Your task to perform on an android device: Go to internet settings Image 0: 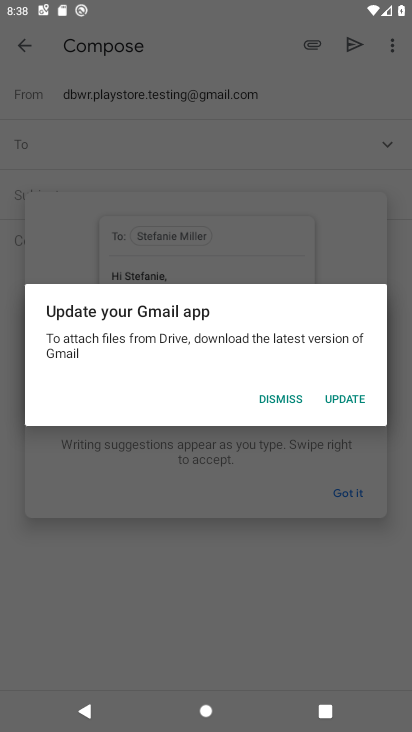
Step 0: press home button
Your task to perform on an android device: Go to internet settings Image 1: 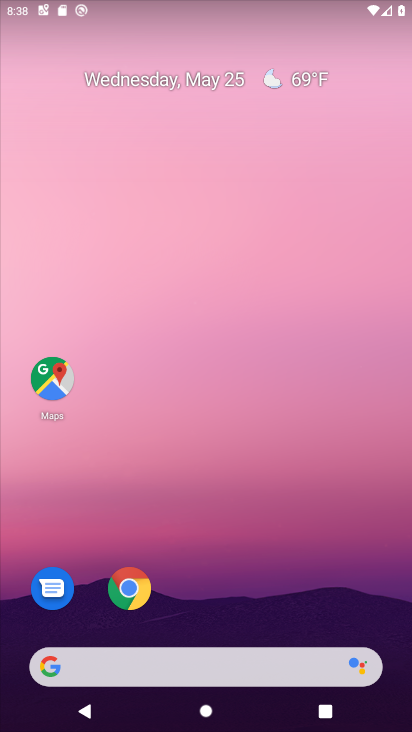
Step 1: drag from (268, 584) to (319, 103)
Your task to perform on an android device: Go to internet settings Image 2: 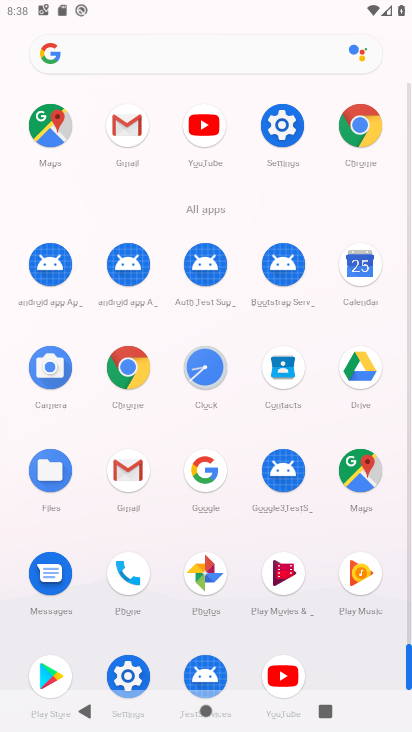
Step 2: click (290, 131)
Your task to perform on an android device: Go to internet settings Image 3: 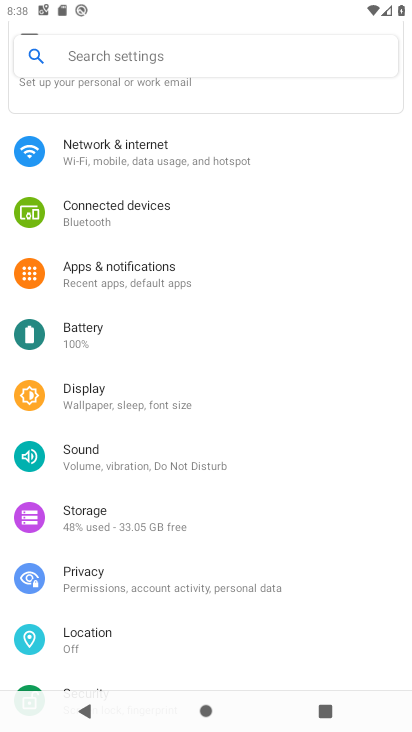
Step 3: drag from (343, 496) to (364, 393)
Your task to perform on an android device: Go to internet settings Image 4: 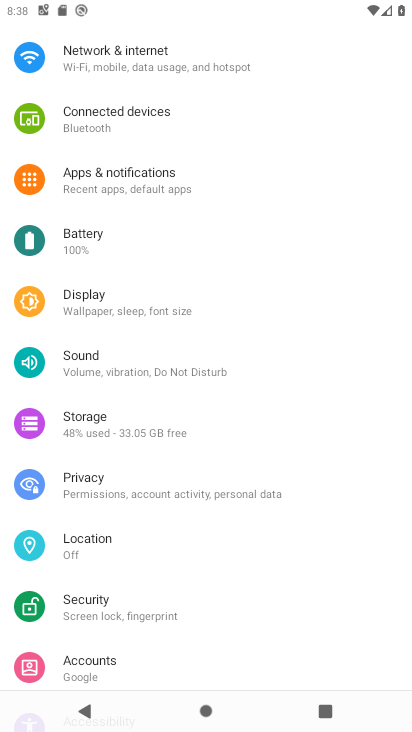
Step 4: drag from (346, 515) to (358, 437)
Your task to perform on an android device: Go to internet settings Image 5: 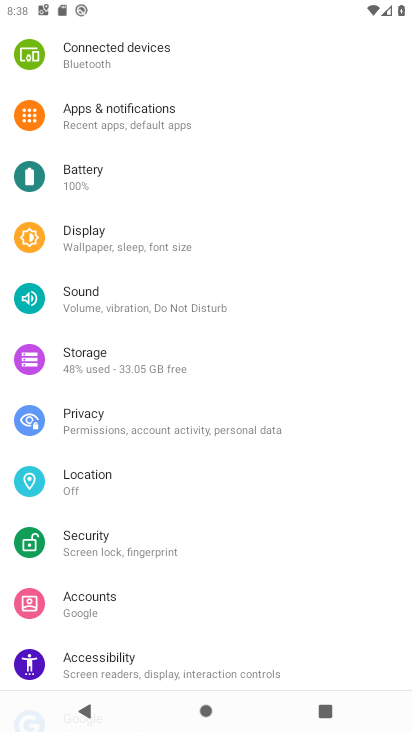
Step 5: drag from (347, 544) to (354, 475)
Your task to perform on an android device: Go to internet settings Image 6: 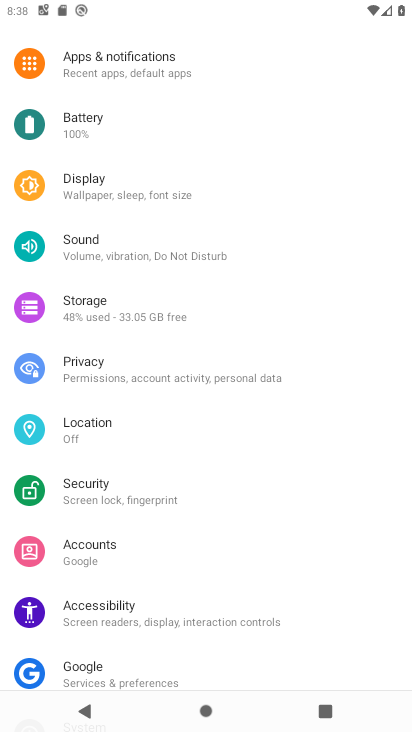
Step 6: drag from (337, 557) to (344, 481)
Your task to perform on an android device: Go to internet settings Image 7: 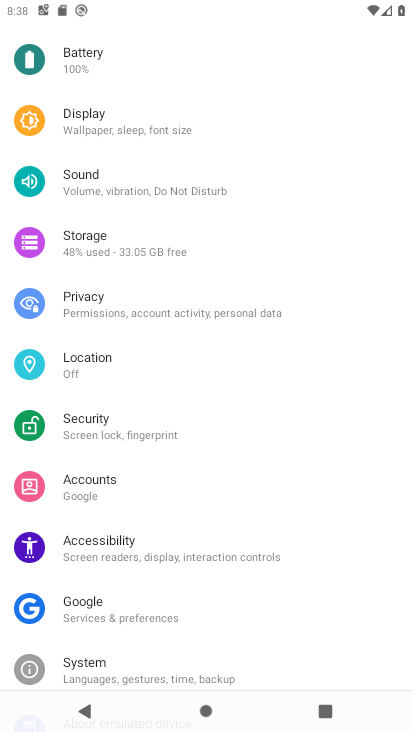
Step 7: drag from (331, 551) to (334, 517)
Your task to perform on an android device: Go to internet settings Image 8: 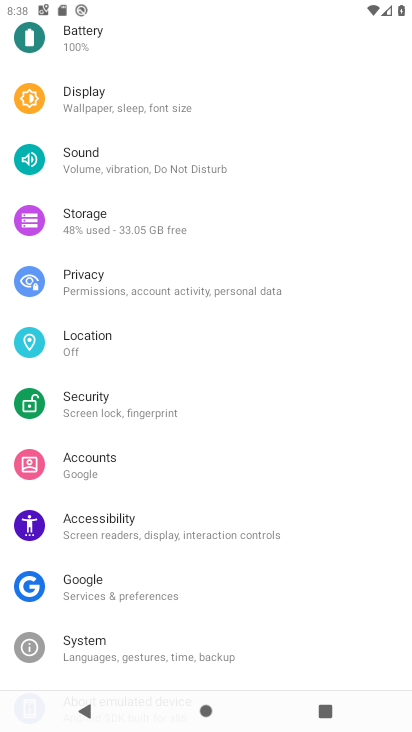
Step 8: drag from (345, 430) to (343, 475)
Your task to perform on an android device: Go to internet settings Image 9: 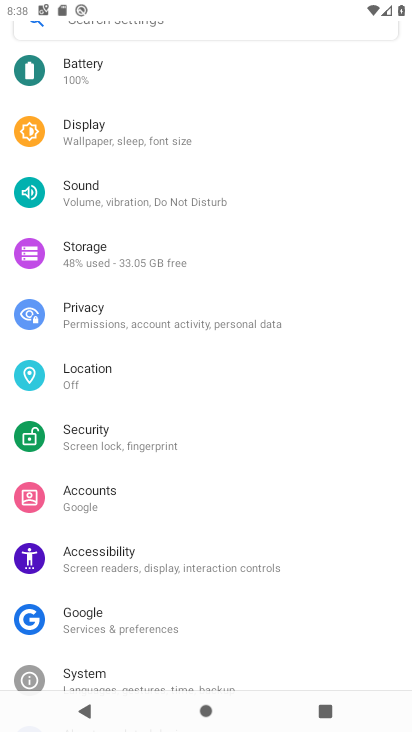
Step 9: drag from (347, 377) to (347, 411)
Your task to perform on an android device: Go to internet settings Image 10: 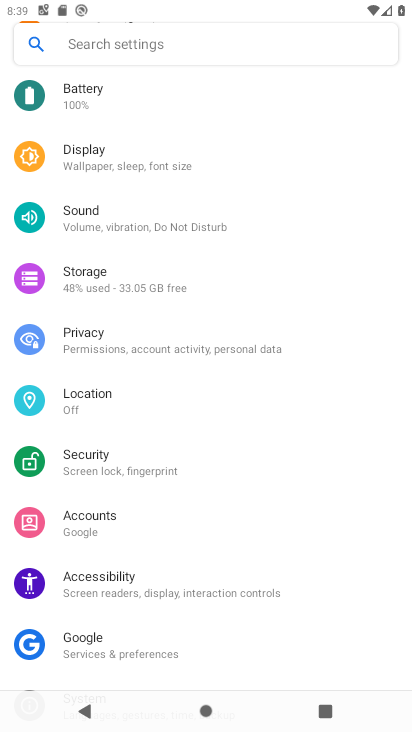
Step 10: drag from (373, 278) to (373, 348)
Your task to perform on an android device: Go to internet settings Image 11: 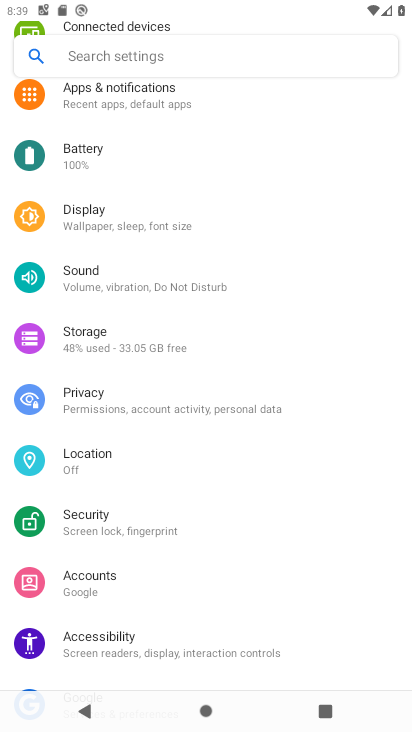
Step 11: drag from (356, 247) to (353, 323)
Your task to perform on an android device: Go to internet settings Image 12: 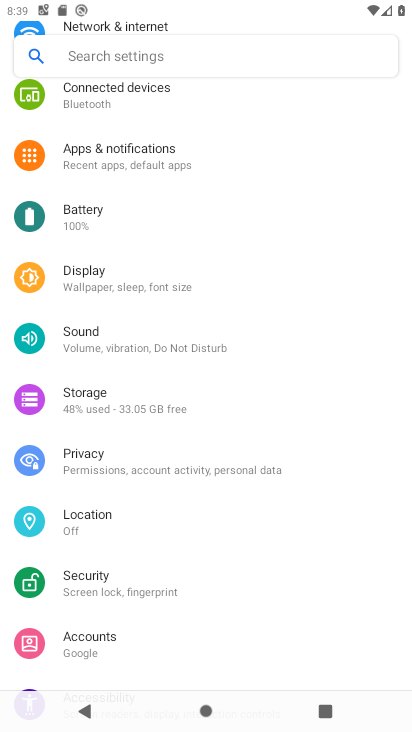
Step 12: drag from (355, 240) to (359, 306)
Your task to perform on an android device: Go to internet settings Image 13: 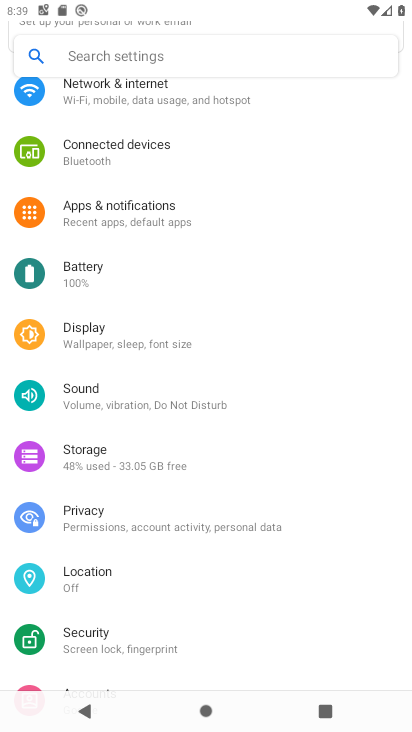
Step 13: drag from (358, 236) to (363, 304)
Your task to perform on an android device: Go to internet settings Image 14: 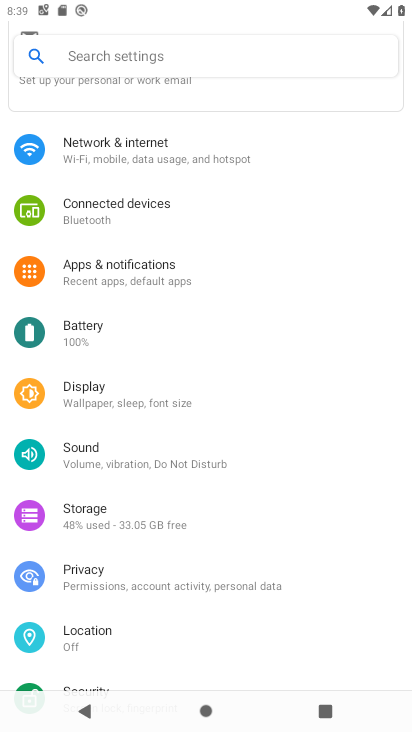
Step 14: drag from (374, 258) to (375, 307)
Your task to perform on an android device: Go to internet settings Image 15: 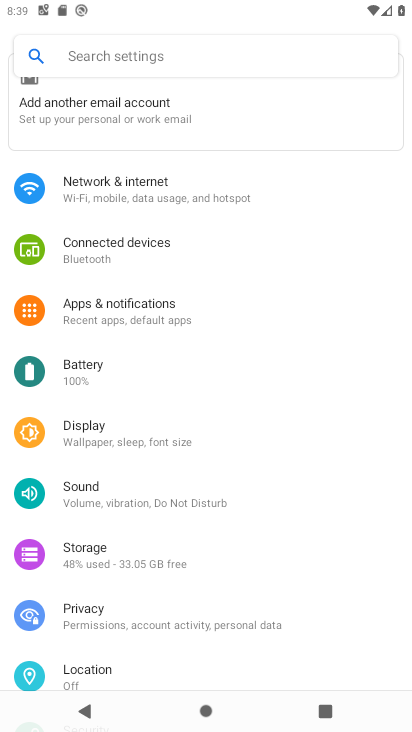
Step 15: drag from (362, 259) to (358, 345)
Your task to perform on an android device: Go to internet settings Image 16: 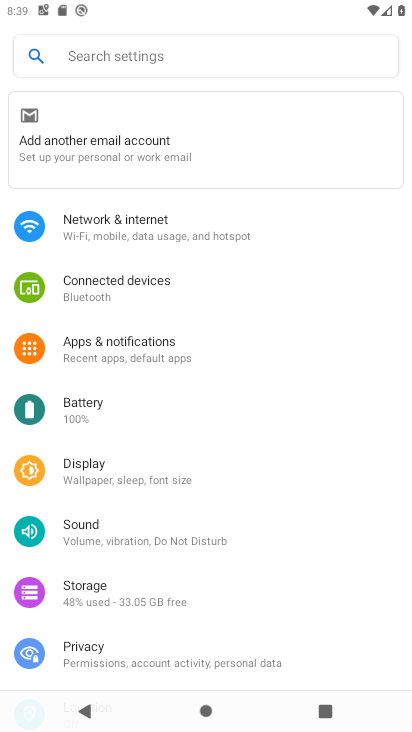
Step 16: click (251, 226)
Your task to perform on an android device: Go to internet settings Image 17: 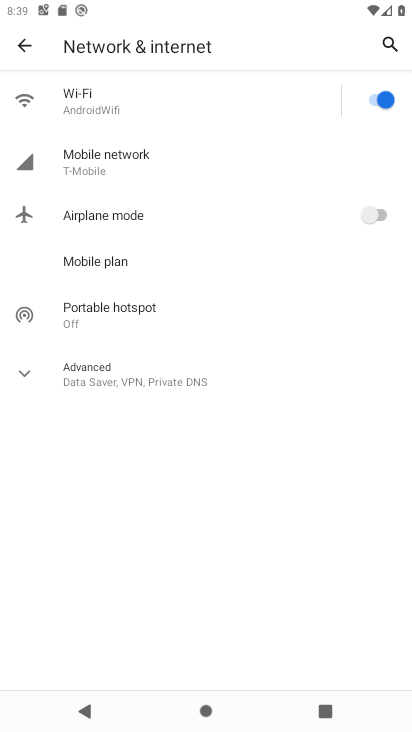
Step 17: task complete